Your task to perform on an android device: open a new tab in the chrome app Image 0: 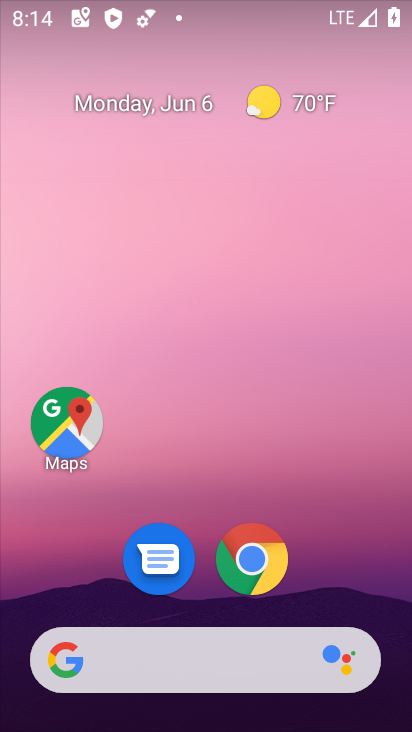
Step 0: click (242, 566)
Your task to perform on an android device: open a new tab in the chrome app Image 1: 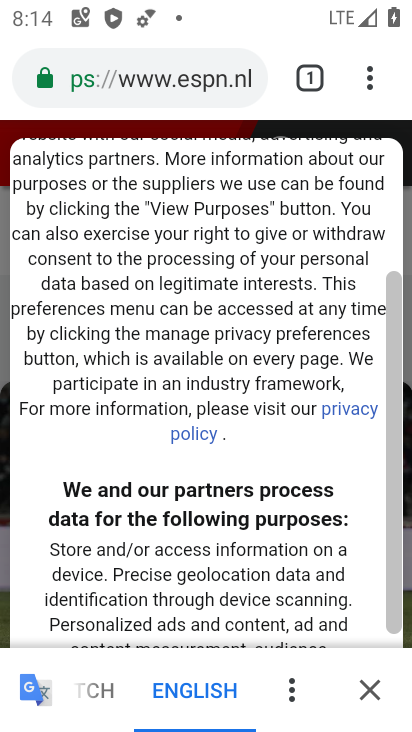
Step 1: click (370, 84)
Your task to perform on an android device: open a new tab in the chrome app Image 2: 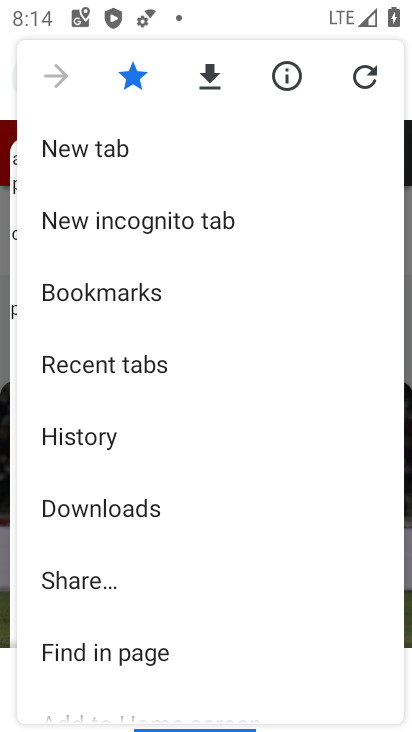
Step 2: click (113, 149)
Your task to perform on an android device: open a new tab in the chrome app Image 3: 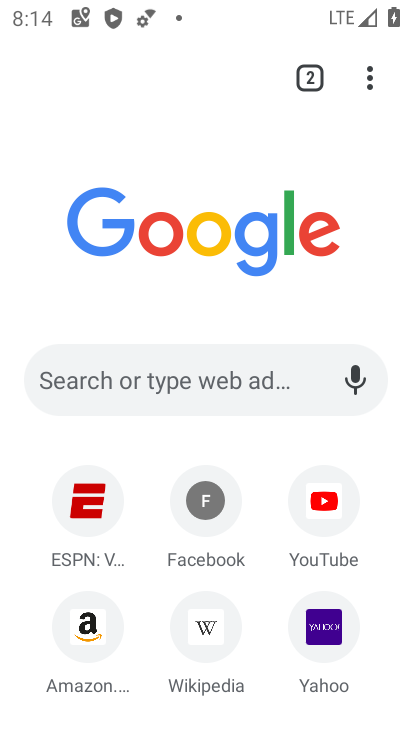
Step 3: task complete